Your task to perform on an android device: Go to network settings Image 0: 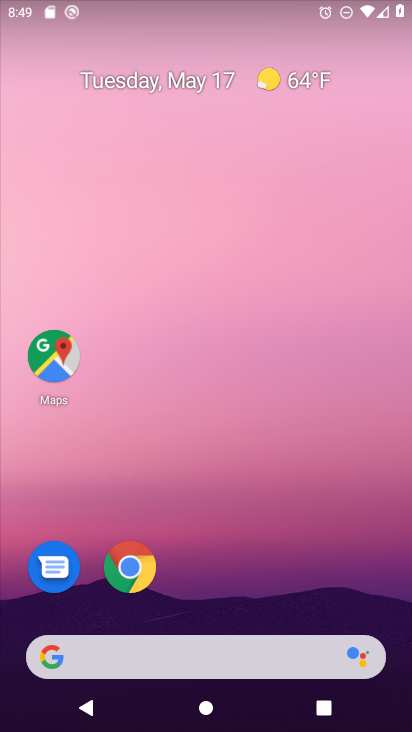
Step 0: drag from (333, 588) to (244, 158)
Your task to perform on an android device: Go to network settings Image 1: 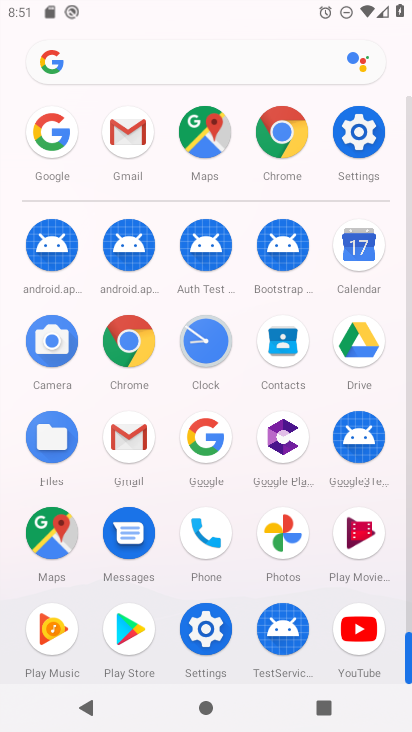
Step 1: click (368, 145)
Your task to perform on an android device: Go to network settings Image 2: 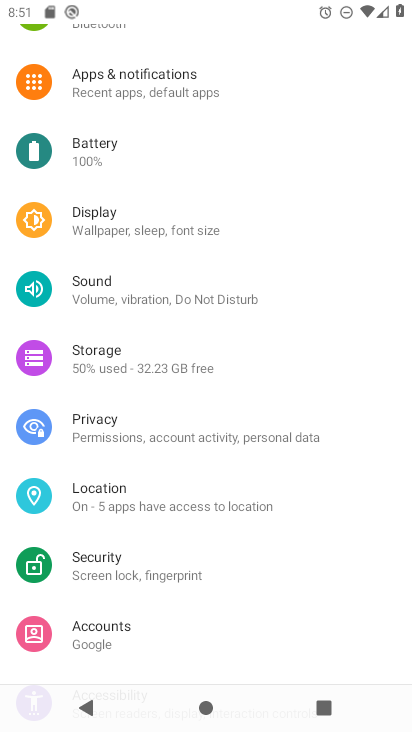
Step 2: drag from (216, 90) to (237, 496)
Your task to perform on an android device: Go to network settings Image 3: 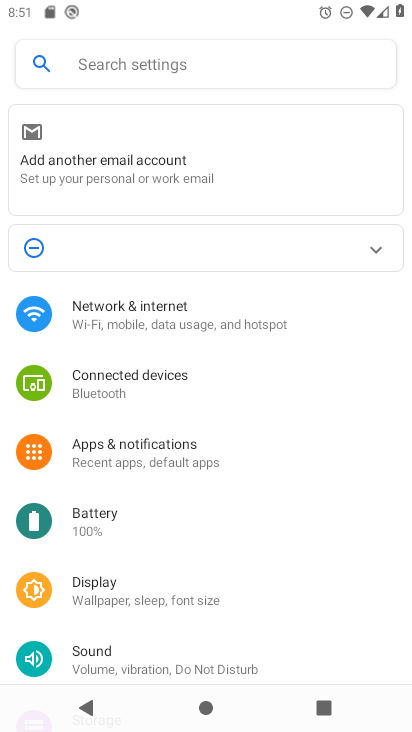
Step 3: click (181, 323)
Your task to perform on an android device: Go to network settings Image 4: 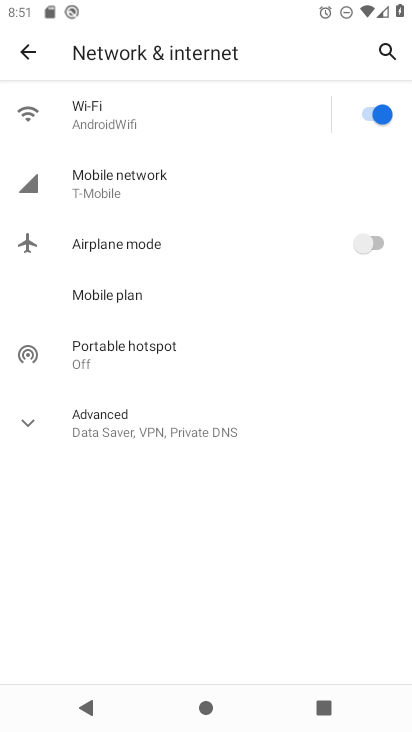
Step 4: task complete